Your task to perform on an android device: Open Google Image 0: 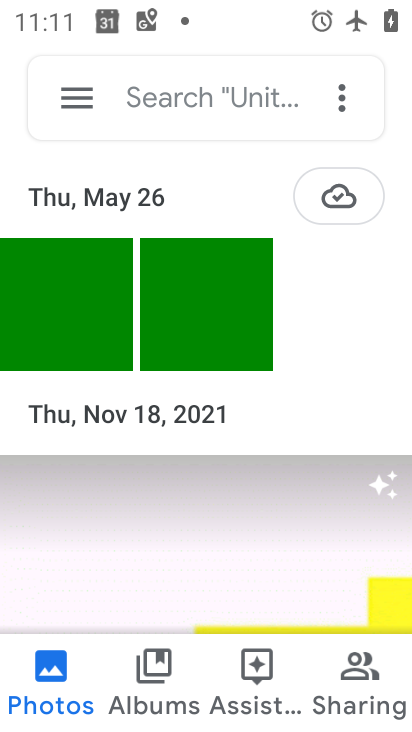
Step 0: press home button
Your task to perform on an android device: Open Google Image 1: 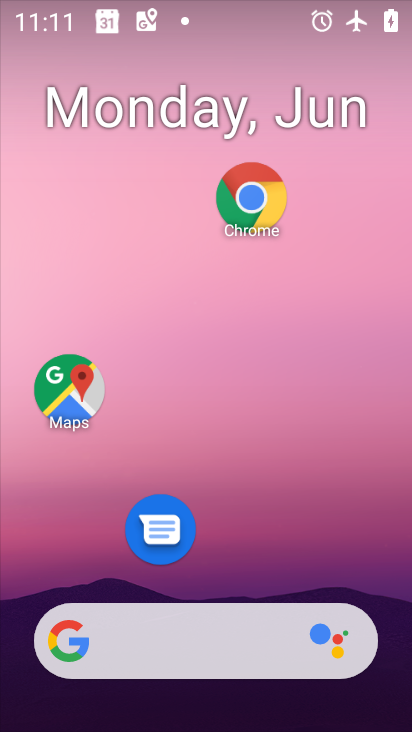
Step 1: drag from (233, 568) to (235, 212)
Your task to perform on an android device: Open Google Image 2: 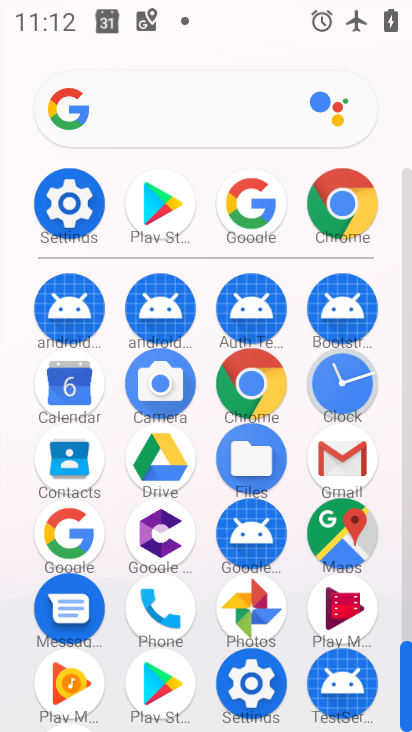
Step 2: click (240, 186)
Your task to perform on an android device: Open Google Image 3: 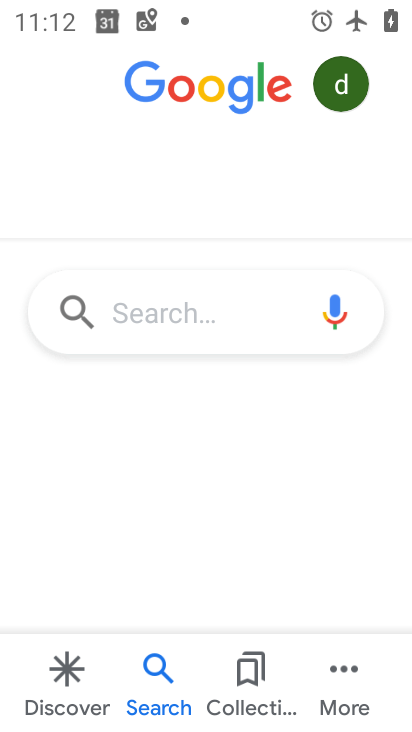
Step 3: task complete